Your task to perform on an android device: Do I have any events this weekend? Image 0: 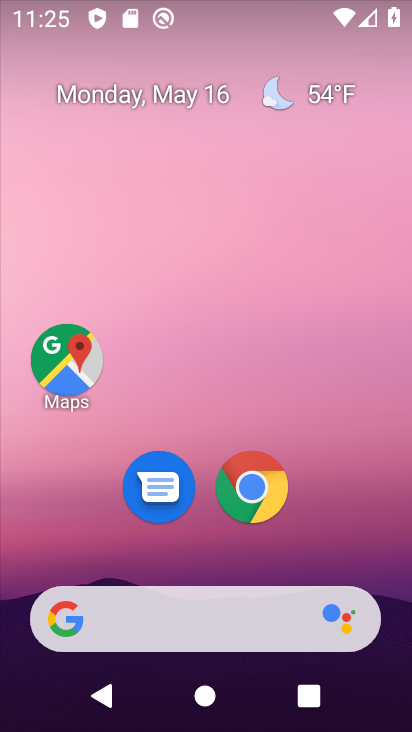
Step 0: drag from (189, 548) to (266, 46)
Your task to perform on an android device: Do I have any events this weekend? Image 1: 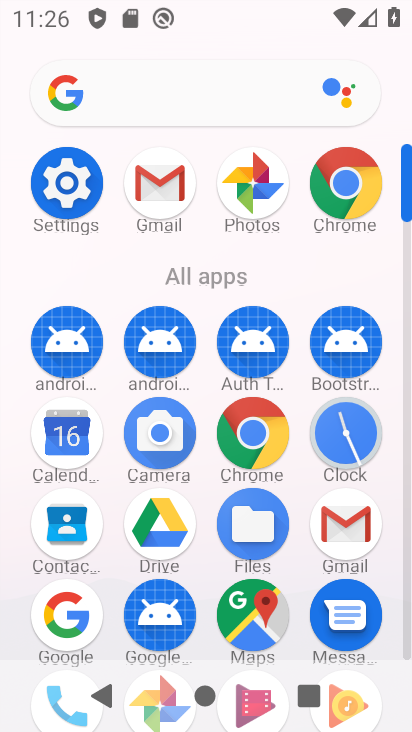
Step 1: click (60, 442)
Your task to perform on an android device: Do I have any events this weekend? Image 2: 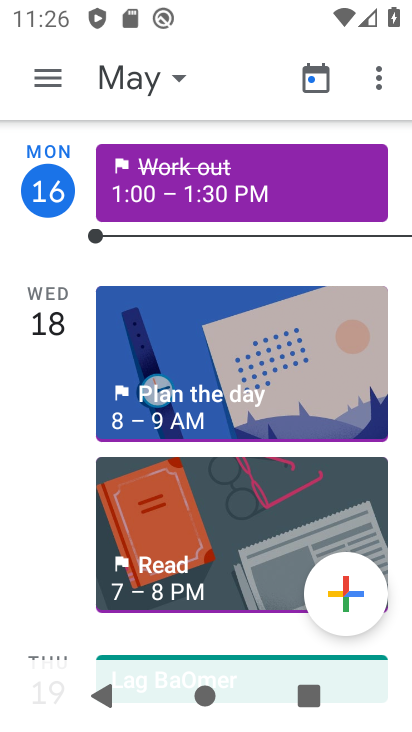
Step 2: drag from (169, 556) to (231, 50)
Your task to perform on an android device: Do I have any events this weekend? Image 3: 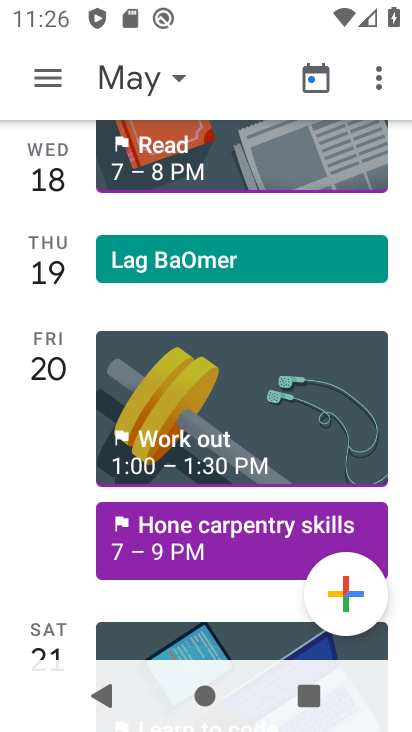
Step 3: drag from (166, 586) to (197, 226)
Your task to perform on an android device: Do I have any events this weekend? Image 4: 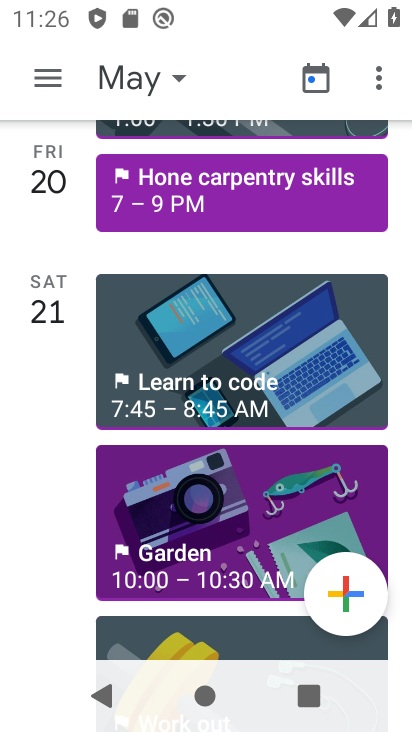
Step 4: drag from (165, 532) to (220, 227)
Your task to perform on an android device: Do I have any events this weekend? Image 5: 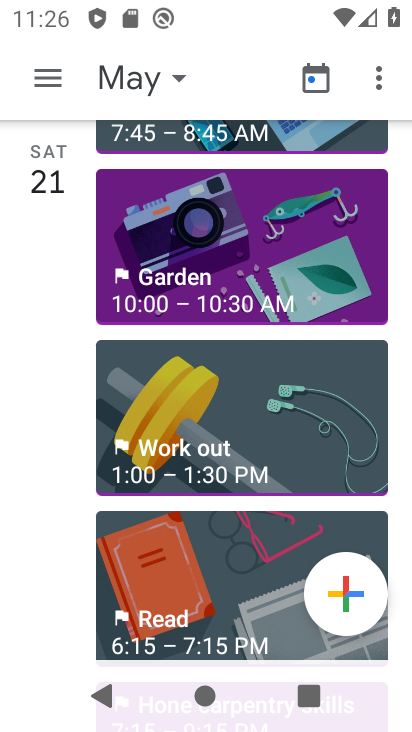
Step 5: click (164, 262)
Your task to perform on an android device: Do I have any events this weekend? Image 6: 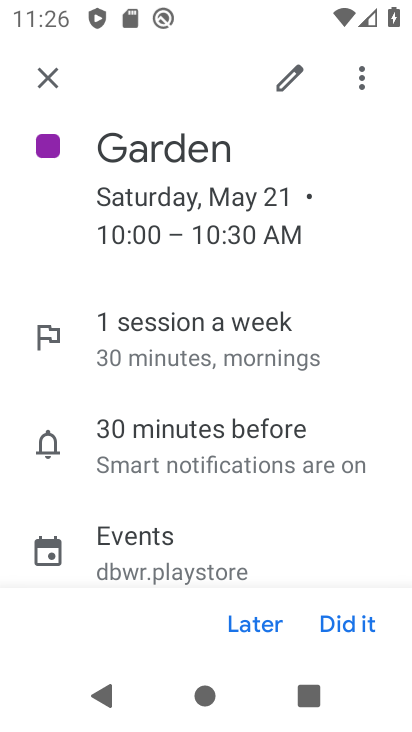
Step 6: task complete